Your task to perform on an android device: allow cookies in the chrome app Image 0: 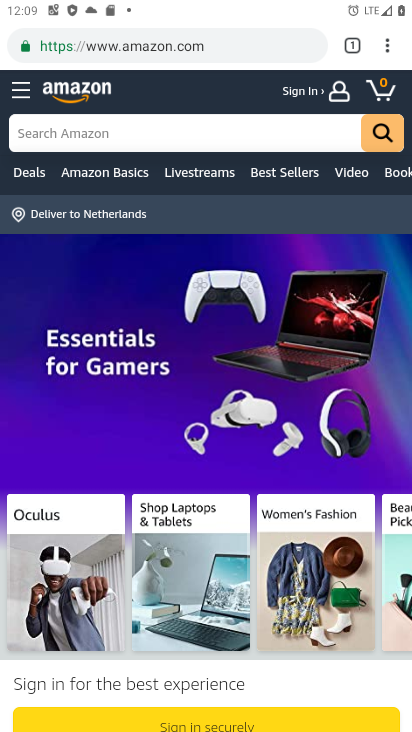
Step 0: press home button
Your task to perform on an android device: allow cookies in the chrome app Image 1: 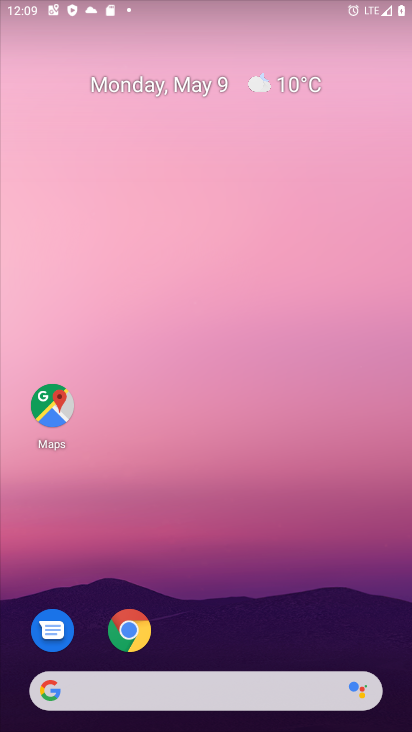
Step 1: drag from (346, 610) to (241, 37)
Your task to perform on an android device: allow cookies in the chrome app Image 2: 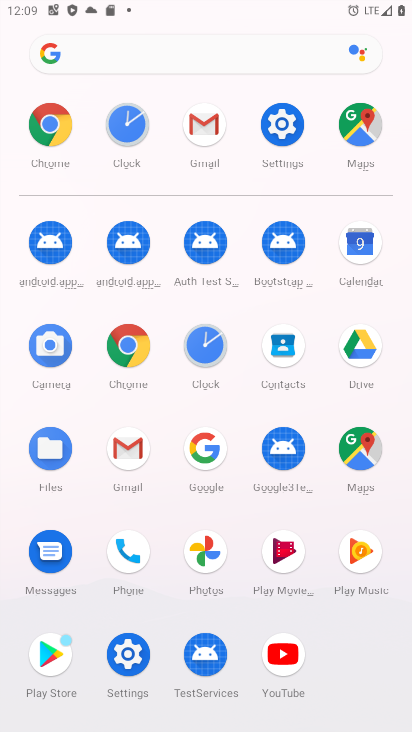
Step 2: click (46, 131)
Your task to perform on an android device: allow cookies in the chrome app Image 3: 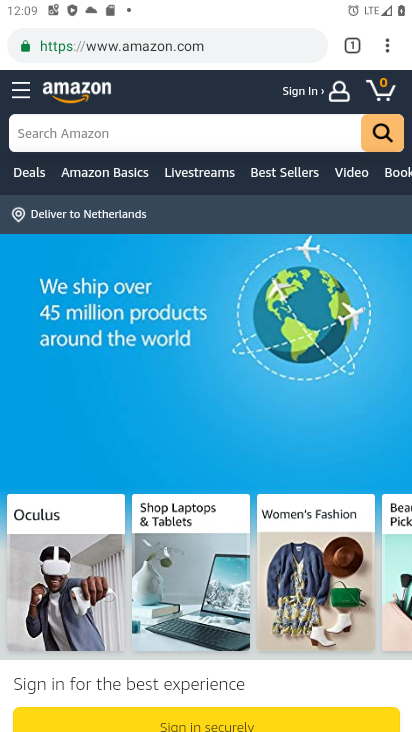
Step 3: press back button
Your task to perform on an android device: allow cookies in the chrome app Image 4: 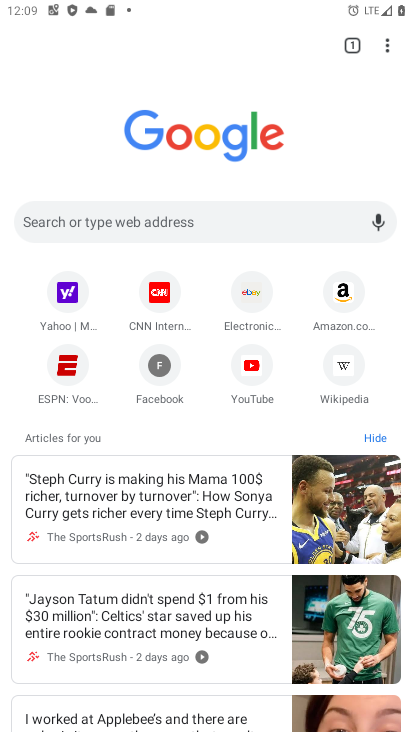
Step 4: click (381, 36)
Your task to perform on an android device: allow cookies in the chrome app Image 5: 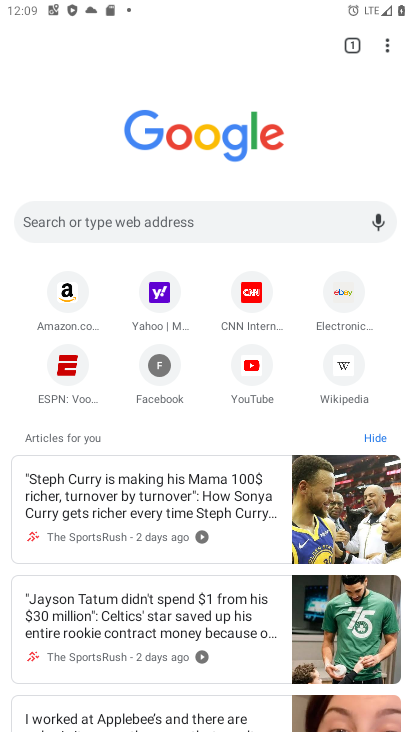
Step 5: click (381, 36)
Your task to perform on an android device: allow cookies in the chrome app Image 6: 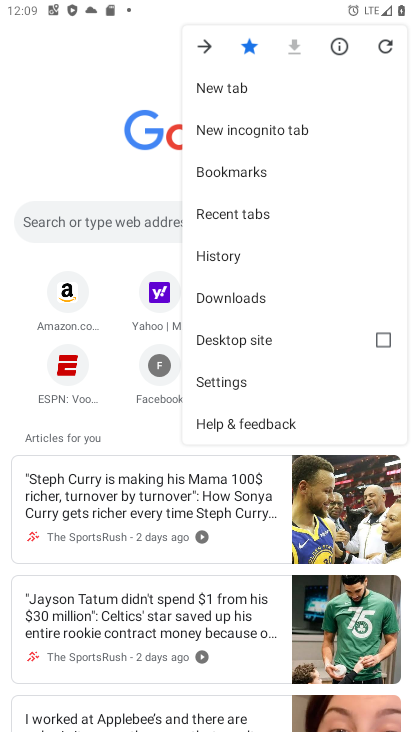
Step 6: click (259, 393)
Your task to perform on an android device: allow cookies in the chrome app Image 7: 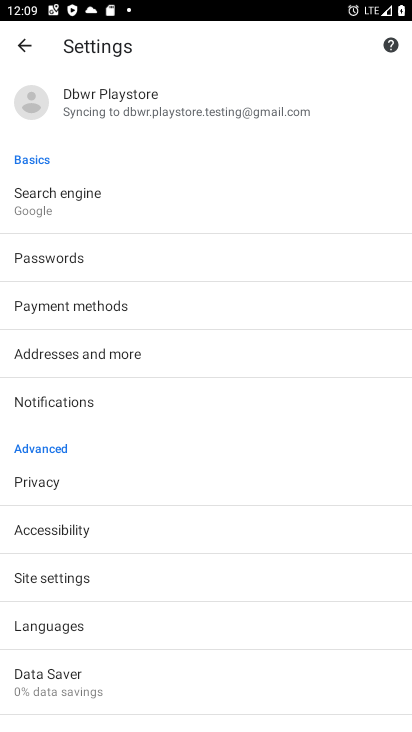
Step 7: click (68, 590)
Your task to perform on an android device: allow cookies in the chrome app Image 8: 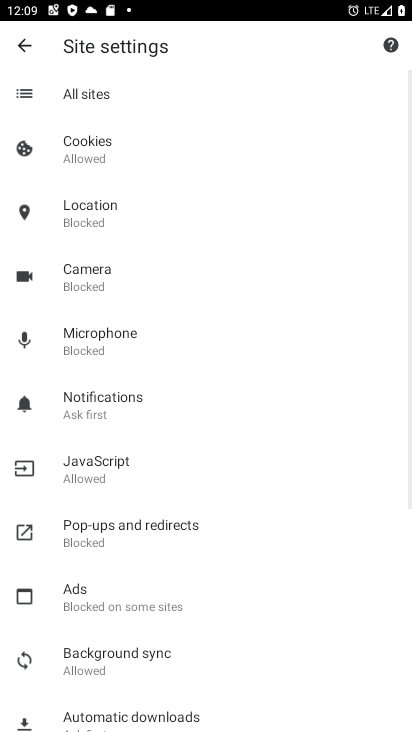
Step 8: click (149, 169)
Your task to perform on an android device: allow cookies in the chrome app Image 9: 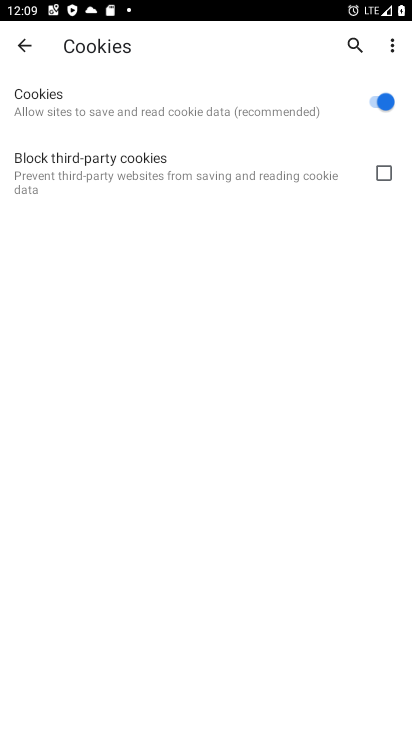
Step 9: task complete